Your task to perform on an android device: create a new album in the google photos Image 0: 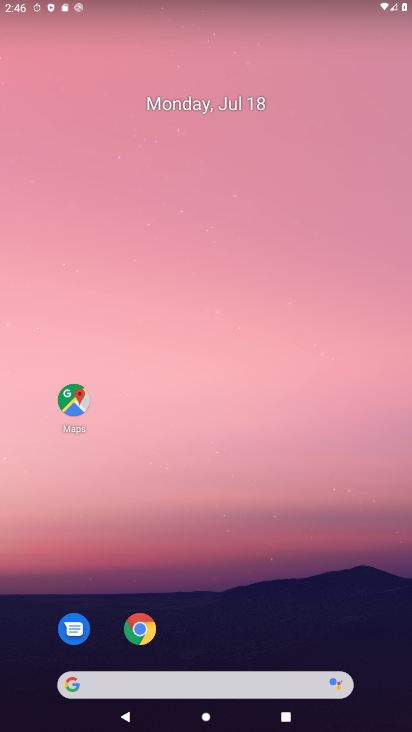
Step 0: drag from (230, 655) to (290, 28)
Your task to perform on an android device: create a new album in the google photos Image 1: 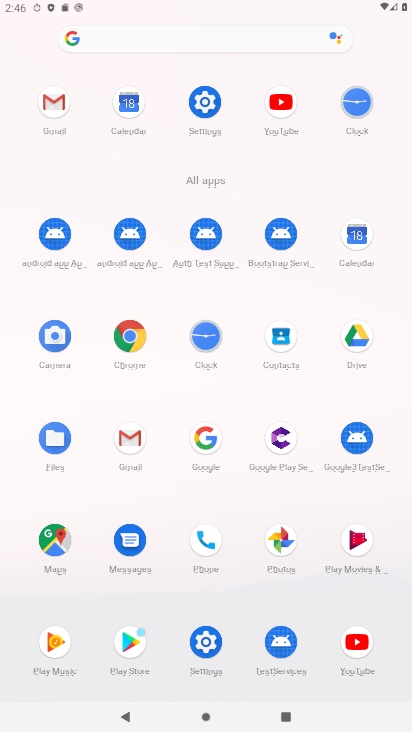
Step 1: click (284, 556)
Your task to perform on an android device: create a new album in the google photos Image 2: 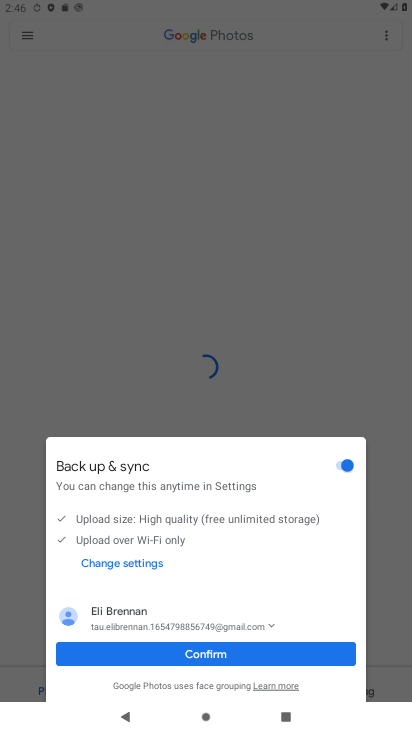
Step 2: click (239, 656)
Your task to perform on an android device: create a new album in the google photos Image 3: 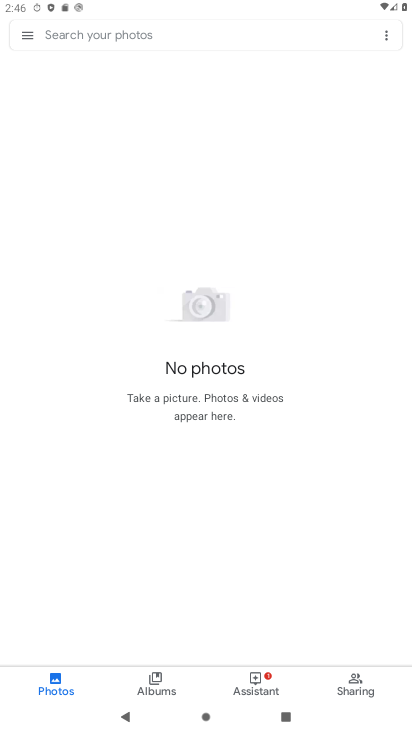
Step 3: click (155, 673)
Your task to perform on an android device: create a new album in the google photos Image 4: 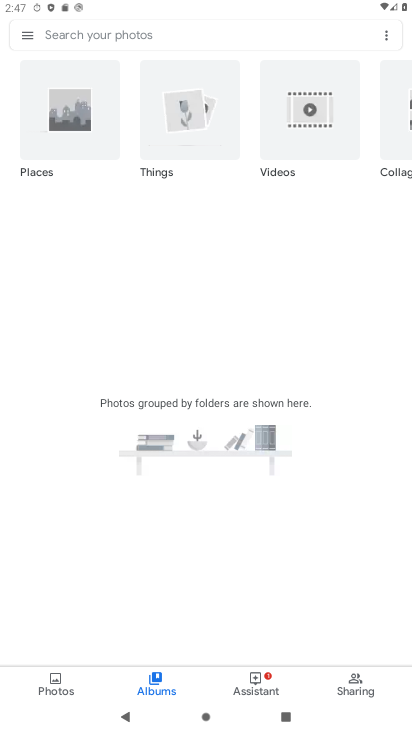
Step 4: task complete